Your task to perform on an android device: add a label to a message in the gmail app Image 0: 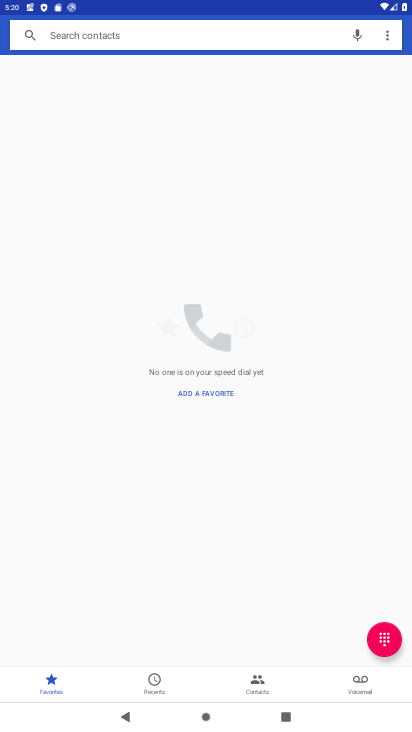
Step 0: press home button
Your task to perform on an android device: add a label to a message in the gmail app Image 1: 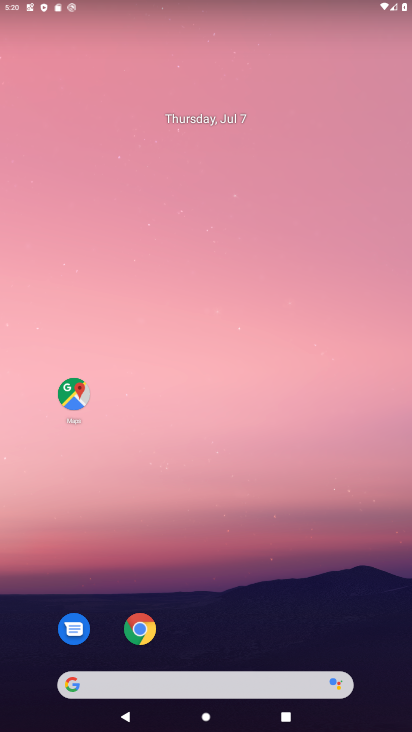
Step 1: drag from (269, 630) to (277, 159)
Your task to perform on an android device: add a label to a message in the gmail app Image 2: 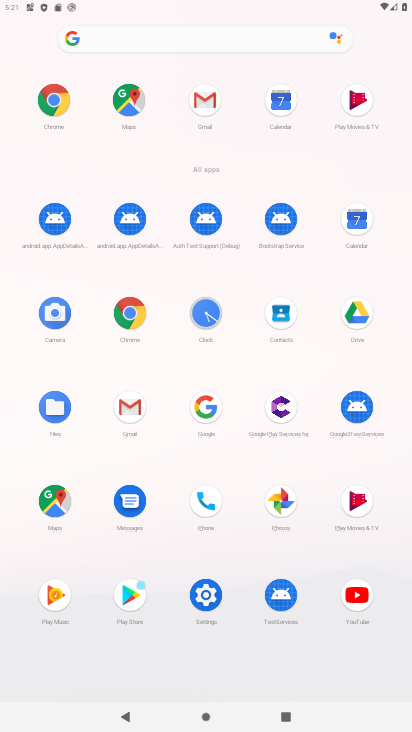
Step 2: click (205, 92)
Your task to perform on an android device: add a label to a message in the gmail app Image 3: 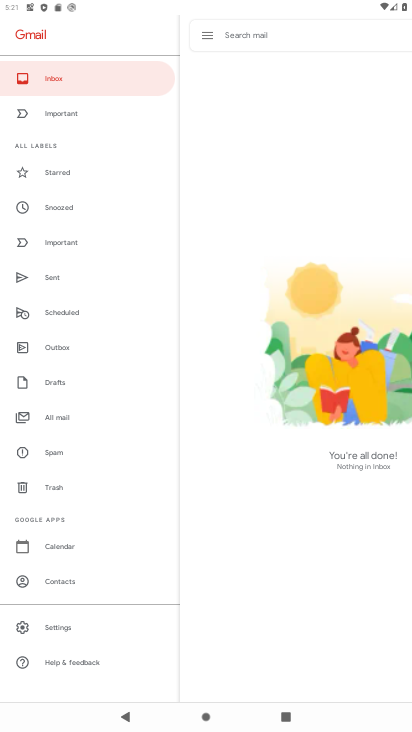
Step 3: click (279, 285)
Your task to perform on an android device: add a label to a message in the gmail app Image 4: 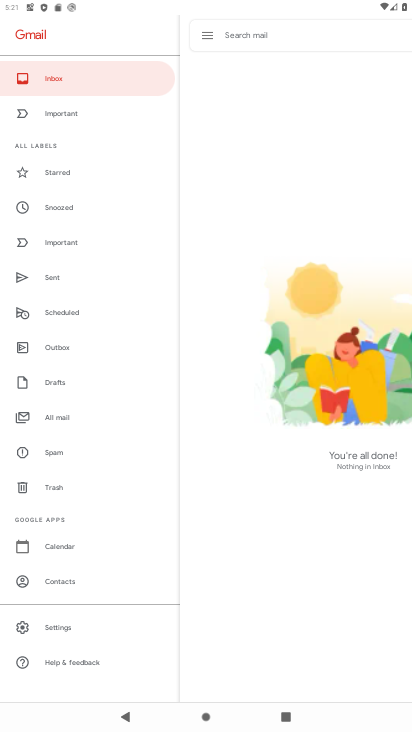
Step 4: task complete